Your task to perform on an android device: Open ESPN.com Image 0: 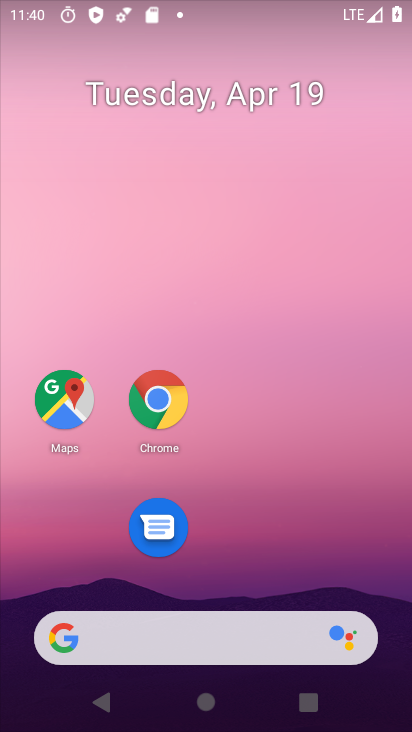
Step 0: drag from (253, 679) to (241, 109)
Your task to perform on an android device: Open ESPN.com Image 1: 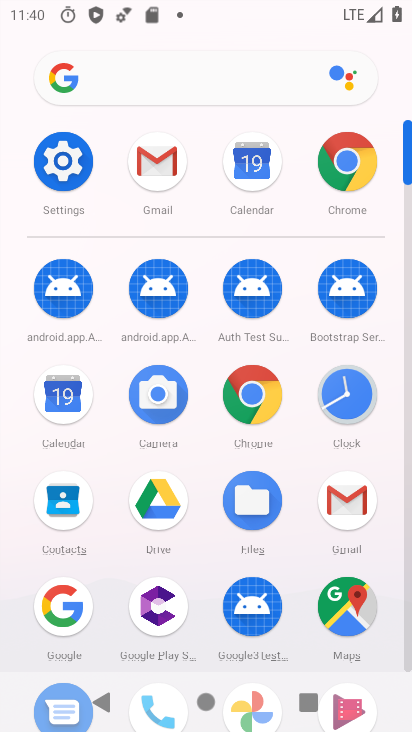
Step 1: click (340, 165)
Your task to perform on an android device: Open ESPN.com Image 2: 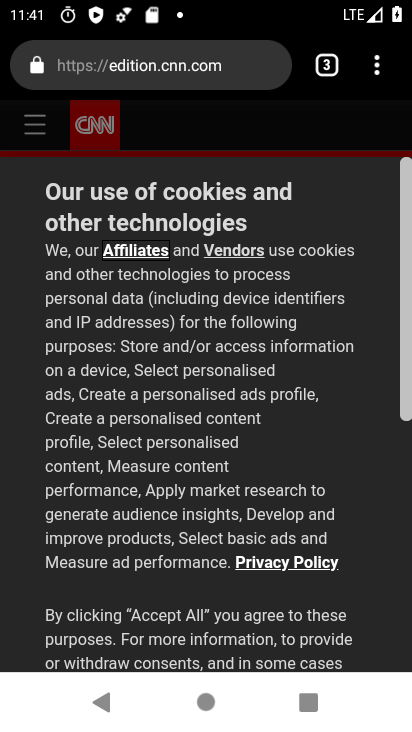
Step 2: click (181, 69)
Your task to perform on an android device: Open ESPN.com Image 3: 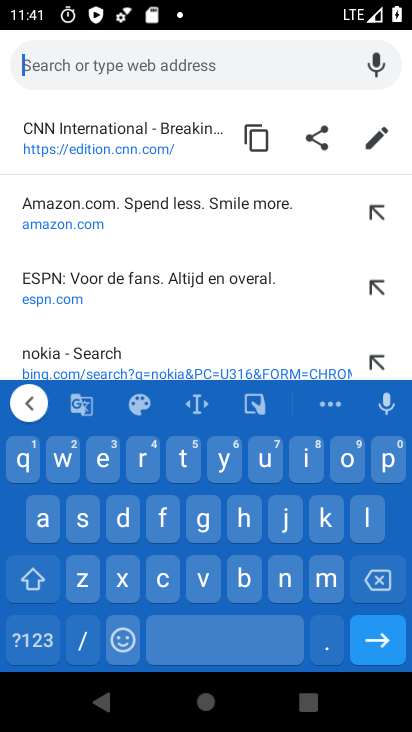
Step 3: click (74, 281)
Your task to perform on an android device: Open ESPN.com Image 4: 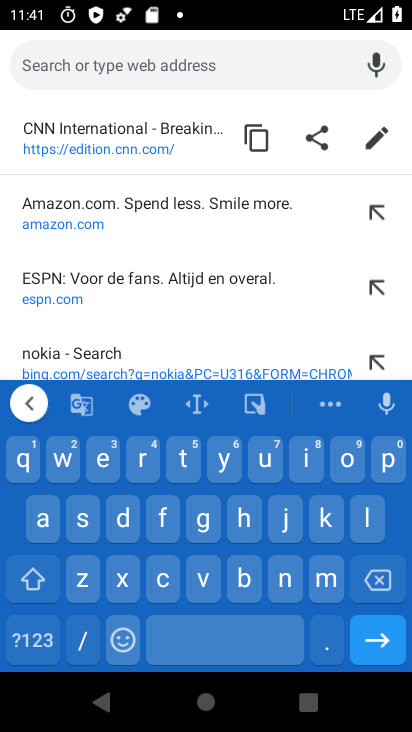
Step 4: click (102, 462)
Your task to perform on an android device: Open ESPN.com Image 5: 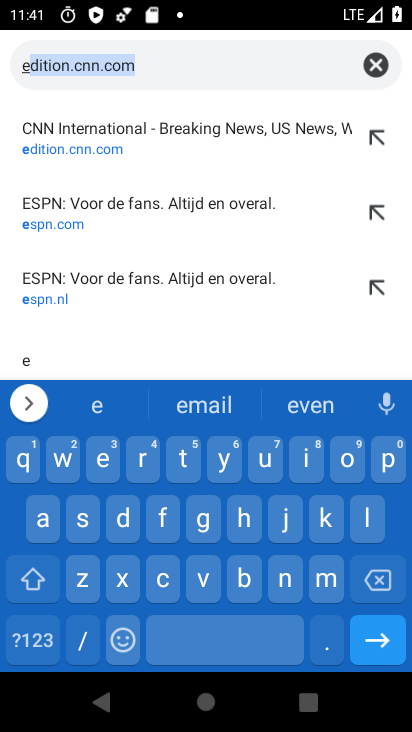
Step 5: click (82, 517)
Your task to perform on an android device: Open ESPN.com Image 6: 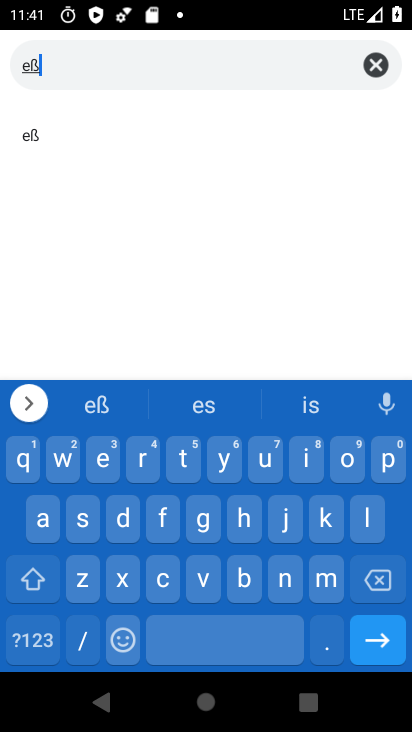
Step 6: click (389, 574)
Your task to perform on an android device: Open ESPN.com Image 7: 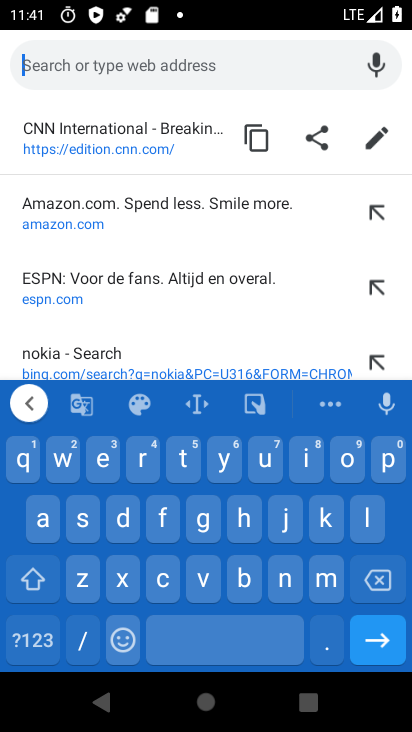
Step 7: click (101, 461)
Your task to perform on an android device: Open ESPN.com Image 8: 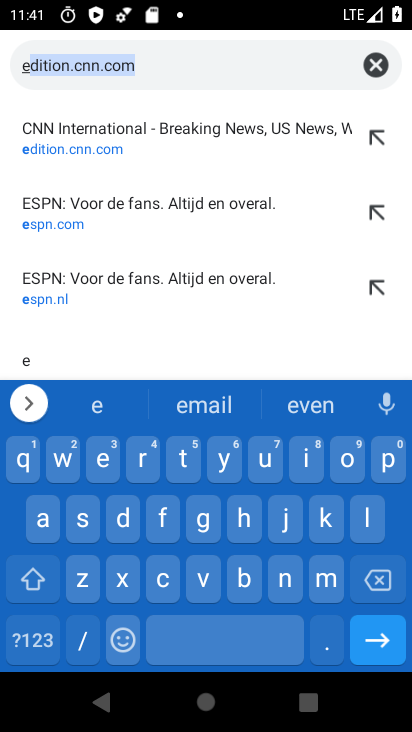
Step 8: click (74, 525)
Your task to perform on an android device: Open ESPN.com Image 9: 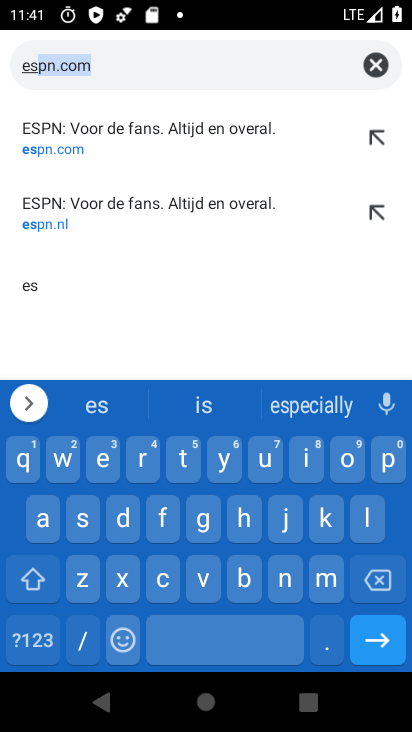
Step 9: click (132, 63)
Your task to perform on an android device: Open ESPN.com Image 10: 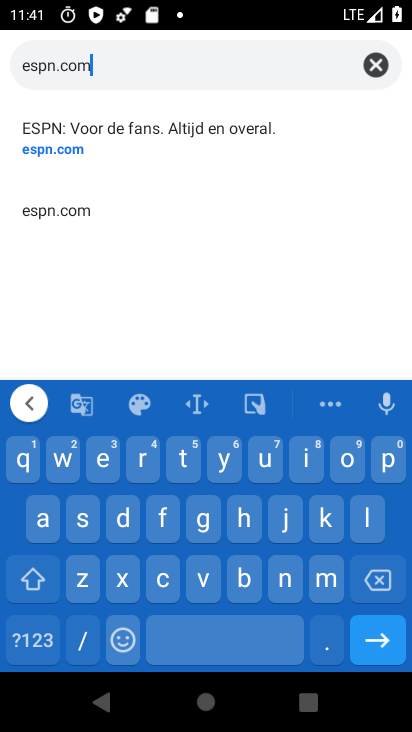
Step 10: click (382, 635)
Your task to perform on an android device: Open ESPN.com Image 11: 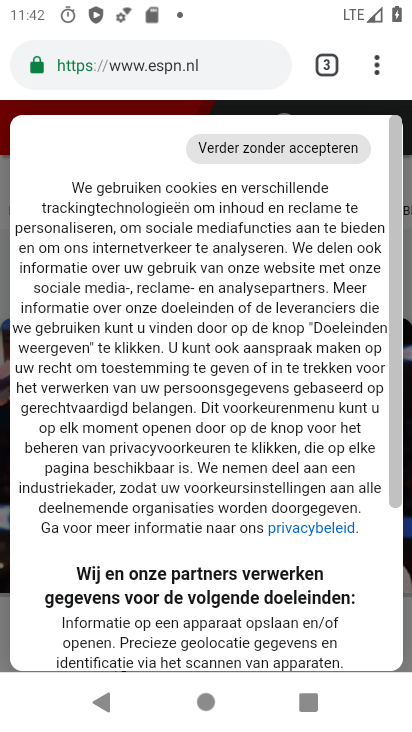
Step 11: task complete